Your task to perform on an android device: Do I have any events today? Image 0: 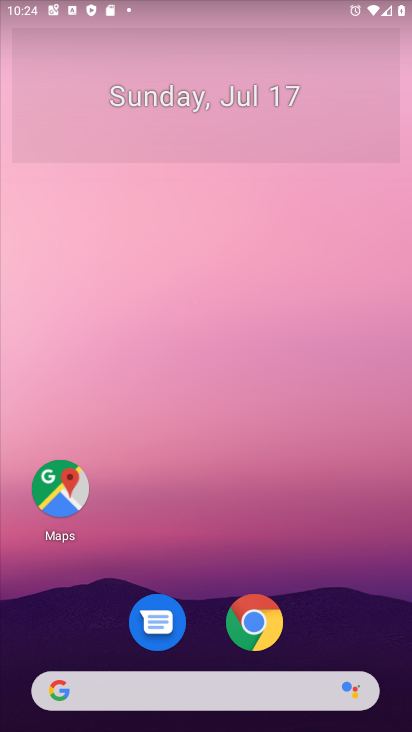
Step 0: drag from (271, 718) to (343, 50)
Your task to perform on an android device: Do I have any events today? Image 1: 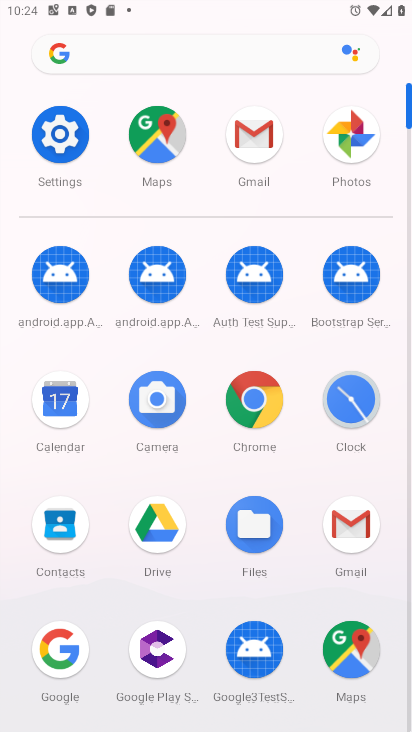
Step 1: click (59, 414)
Your task to perform on an android device: Do I have any events today? Image 2: 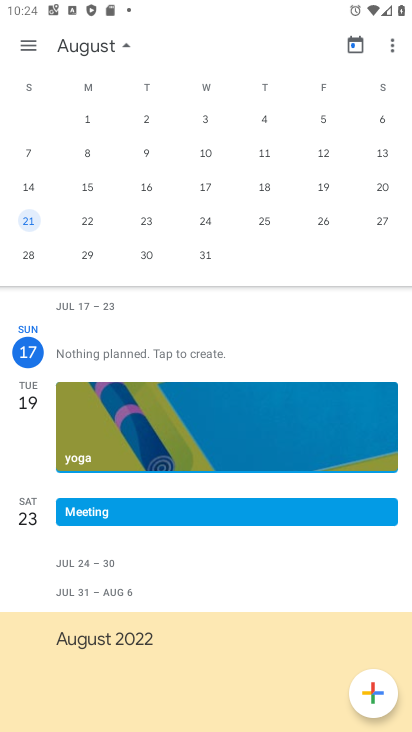
Step 2: drag from (19, 185) to (288, 501)
Your task to perform on an android device: Do I have any events today? Image 3: 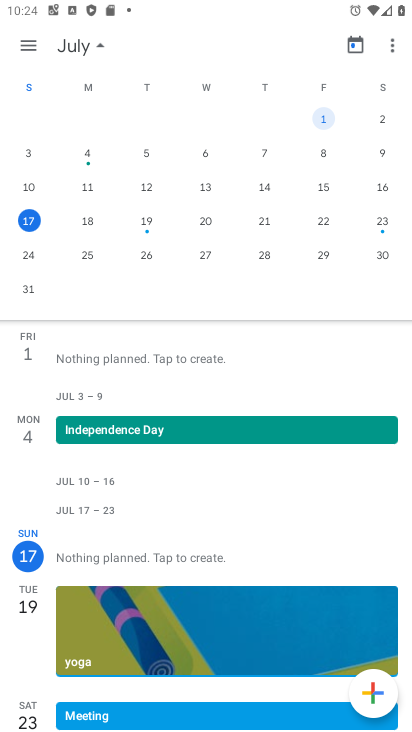
Step 3: click (36, 218)
Your task to perform on an android device: Do I have any events today? Image 4: 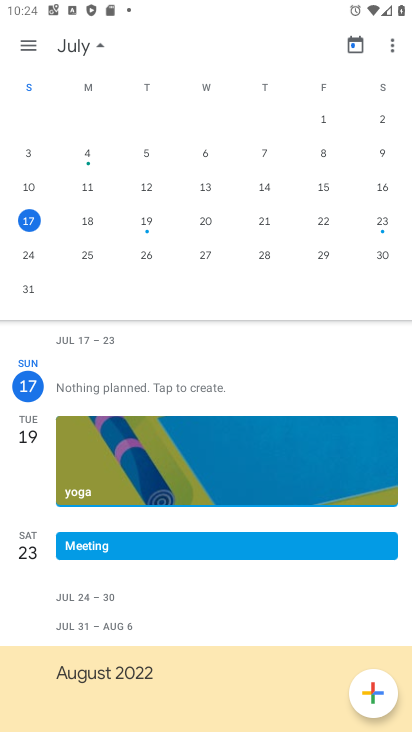
Step 4: task complete